Your task to perform on an android device: Open Yahoo.com Image 0: 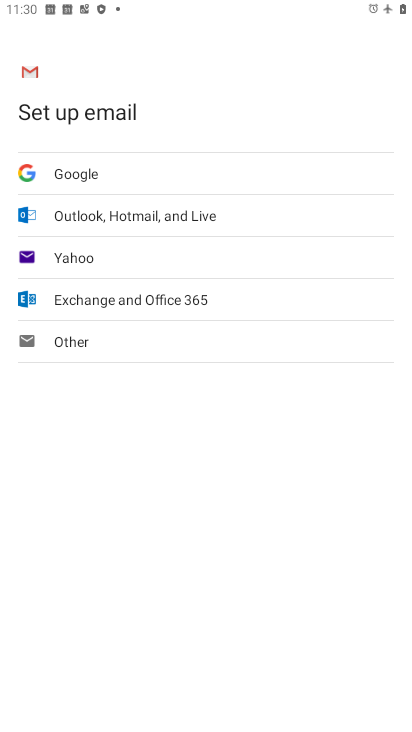
Step 0: press home button
Your task to perform on an android device: Open Yahoo.com Image 1: 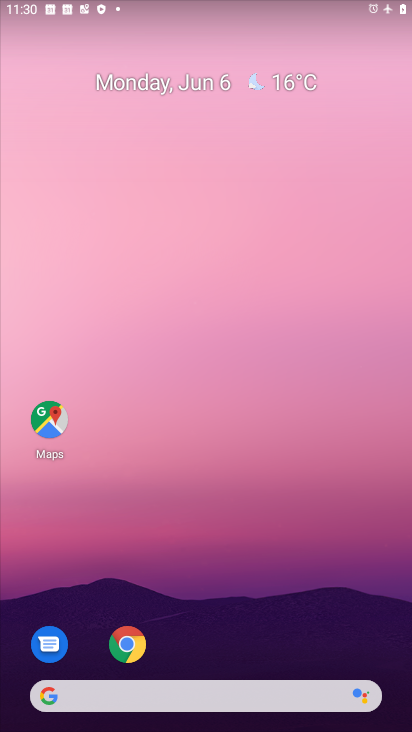
Step 1: drag from (269, 595) to (245, 78)
Your task to perform on an android device: Open Yahoo.com Image 2: 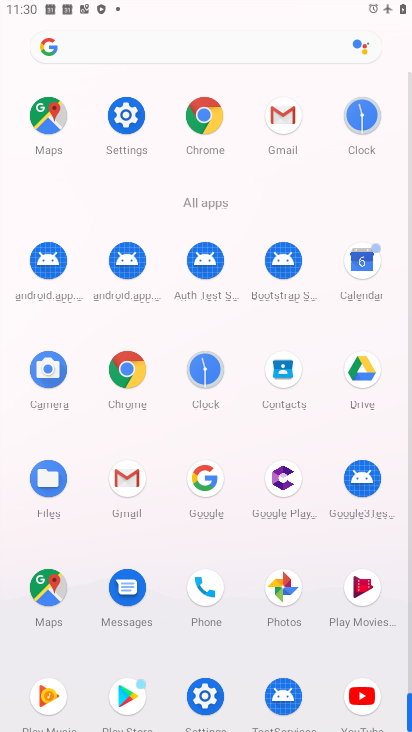
Step 2: click (140, 379)
Your task to perform on an android device: Open Yahoo.com Image 3: 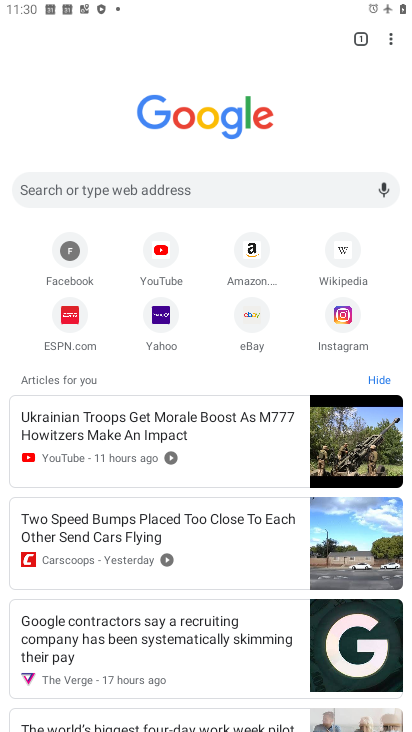
Step 3: click (164, 315)
Your task to perform on an android device: Open Yahoo.com Image 4: 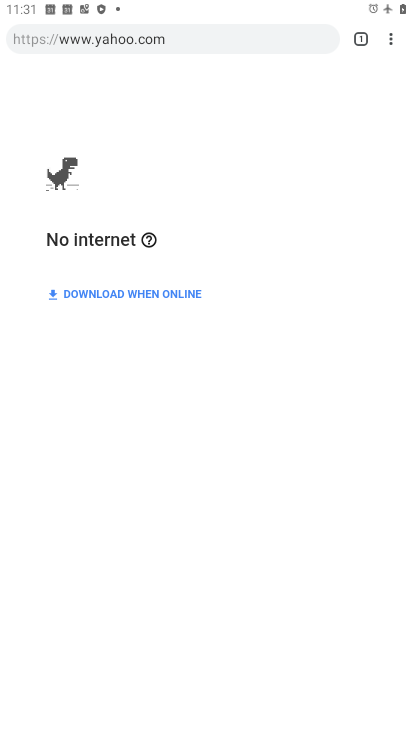
Step 4: task complete